Your task to perform on an android device: Go to settings Image 0: 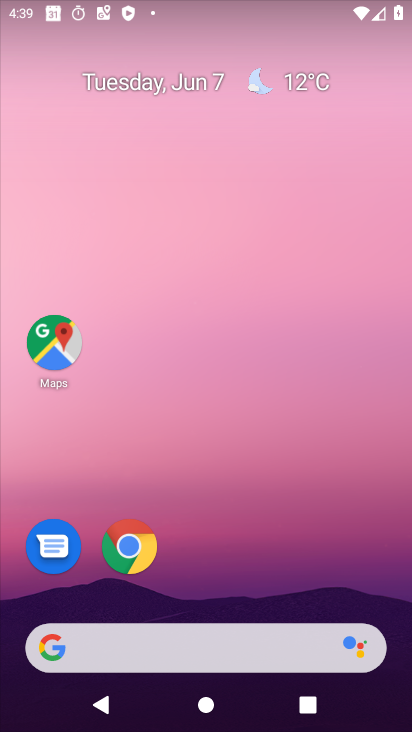
Step 0: drag from (340, 617) to (378, 133)
Your task to perform on an android device: Go to settings Image 1: 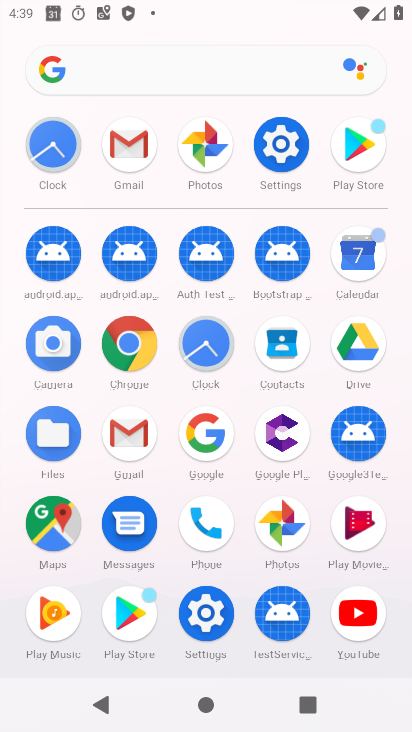
Step 1: click (292, 154)
Your task to perform on an android device: Go to settings Image 2: 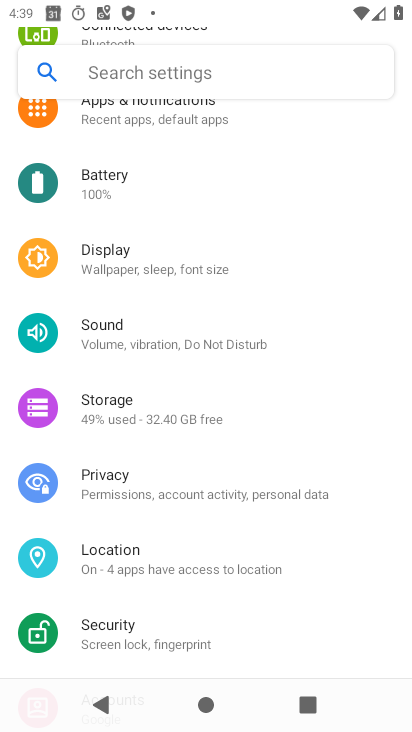
Step 2: task complete